Your task to perform on an android device: Clear the shopping cart on newegg. Add razer blade to the cart on newegg, then select checkout. Image 0: 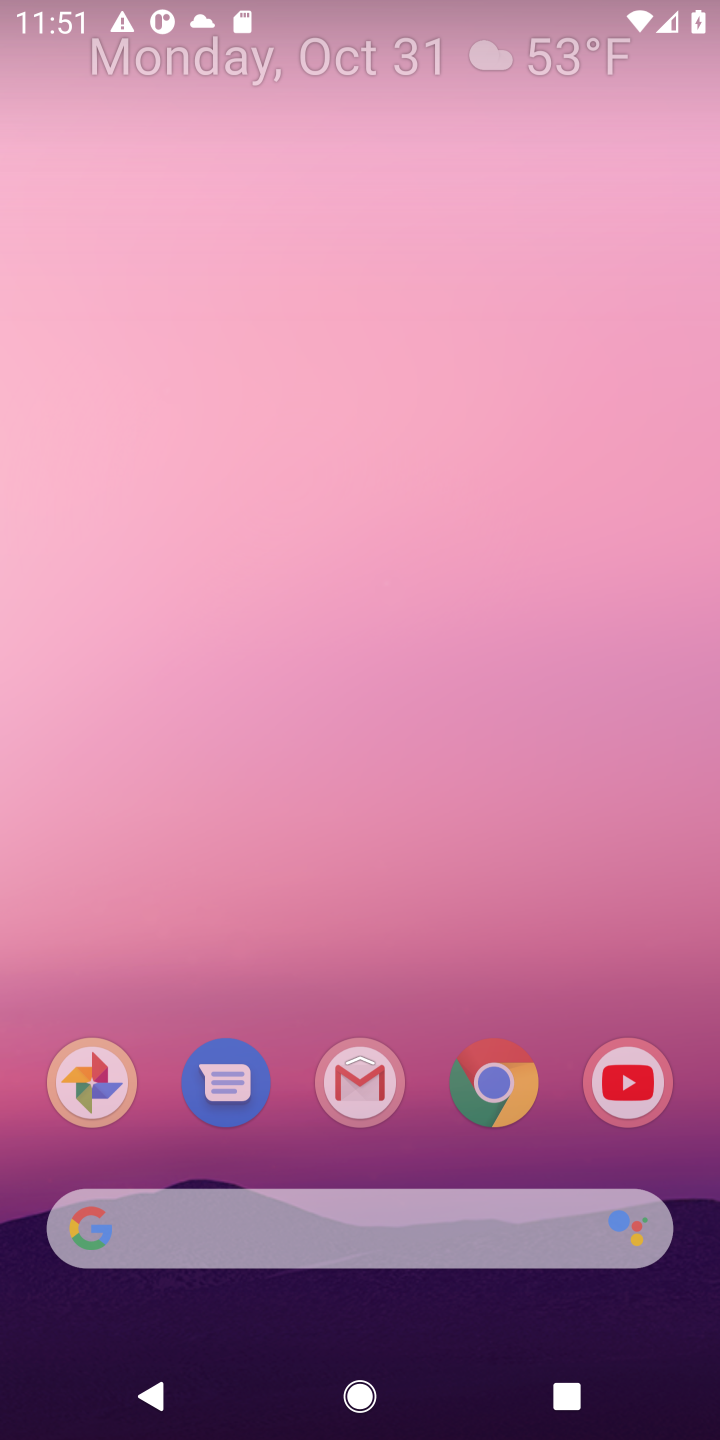
Step 0: press home button
Your task to perform on an android device: Clear the shopping cart on newegg. Add razer blade to the cart on newegg, then select checkout. Image 1: 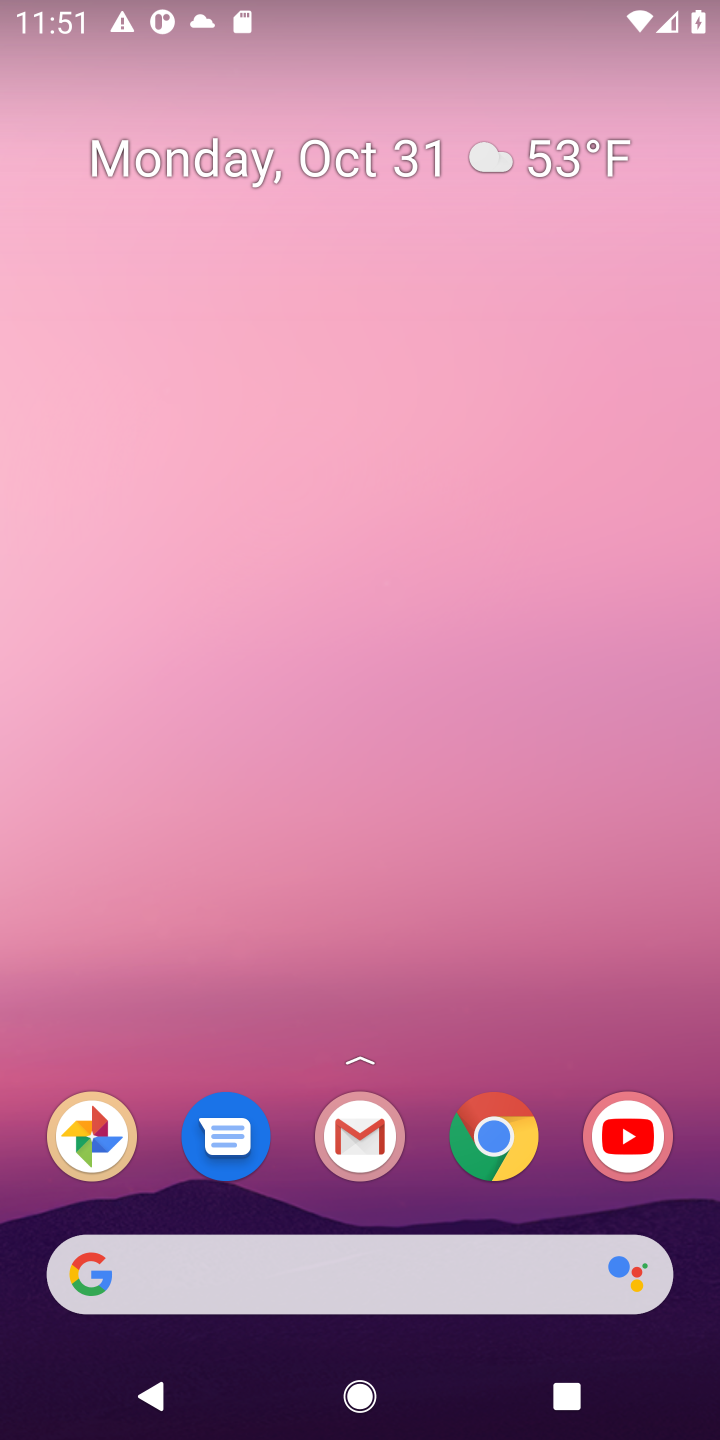
Step 1: click (131, 1260)
Your task to perform on an android device: Clear the shopping cart on newegg. Add razer blade to the cart on newegg, then select checkout. Image 2: 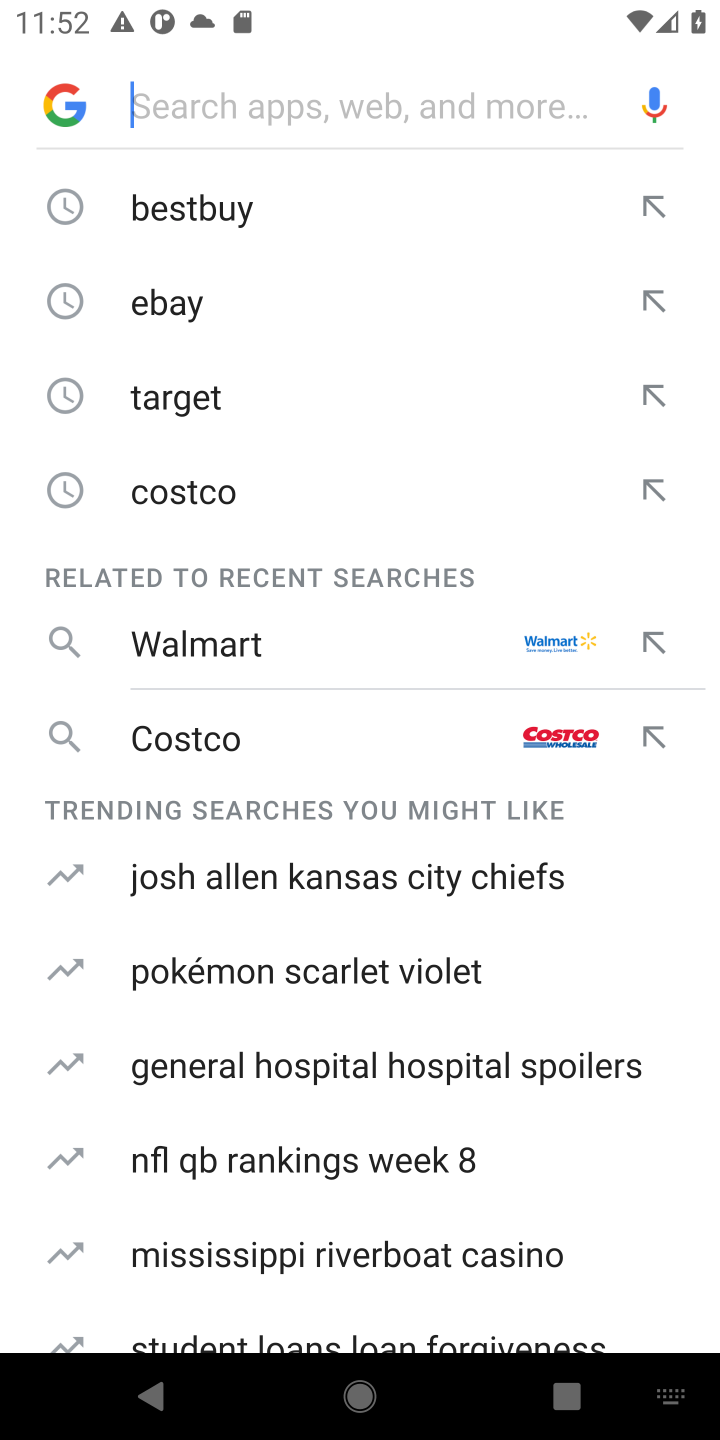
Step 2: press enter
Your task to perform on an android device: Clear the shopping cart on newegg. Add razer blade to the cart on newegg, then select checkout. Image 3: 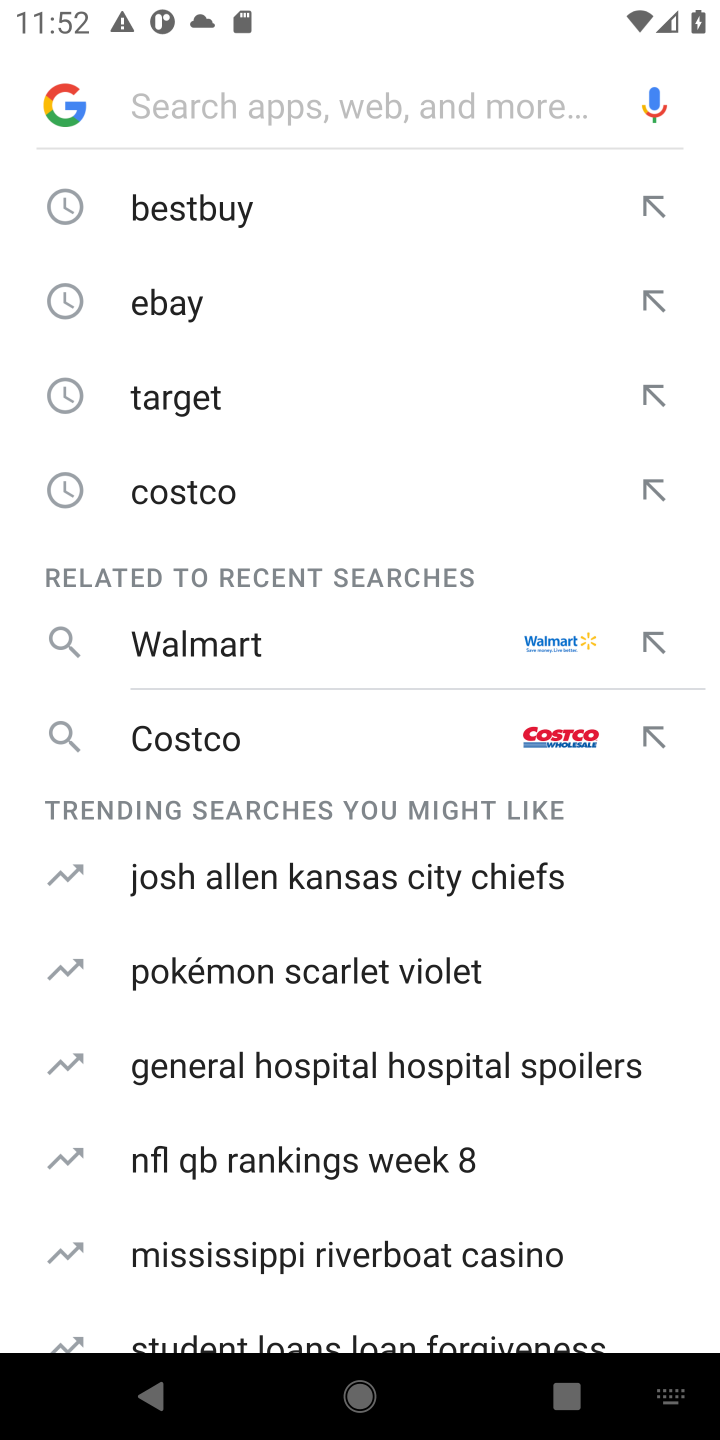
Step 3: type "newegg"
Your task to perform on an android device: Clear the shopping cart on newegg. Add razer blade to the cart on newegg, then select checkout. Image 4: 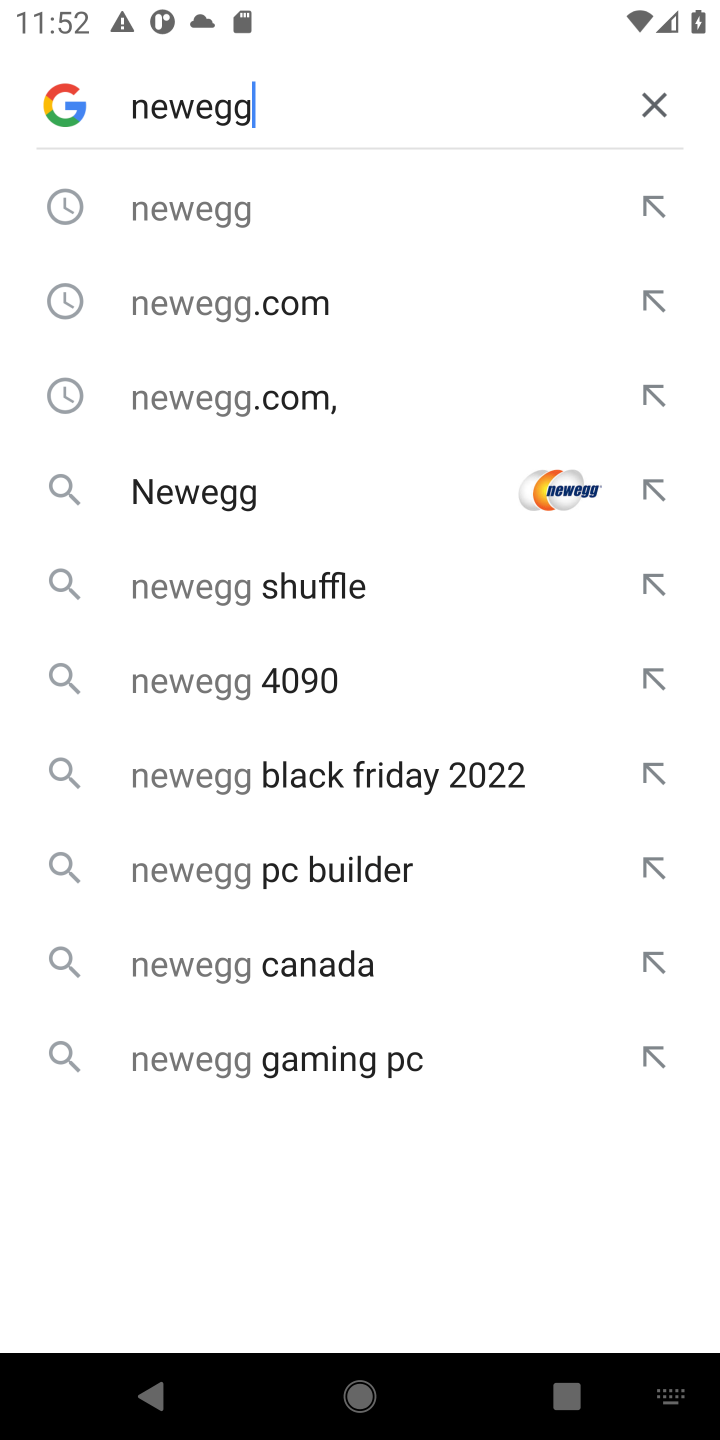
Step 4: press enter
Your task to perform on an android device: Clear the shopping cart on newegg. Add razer blade to the cart on newegg, then select checkout. Image 5: 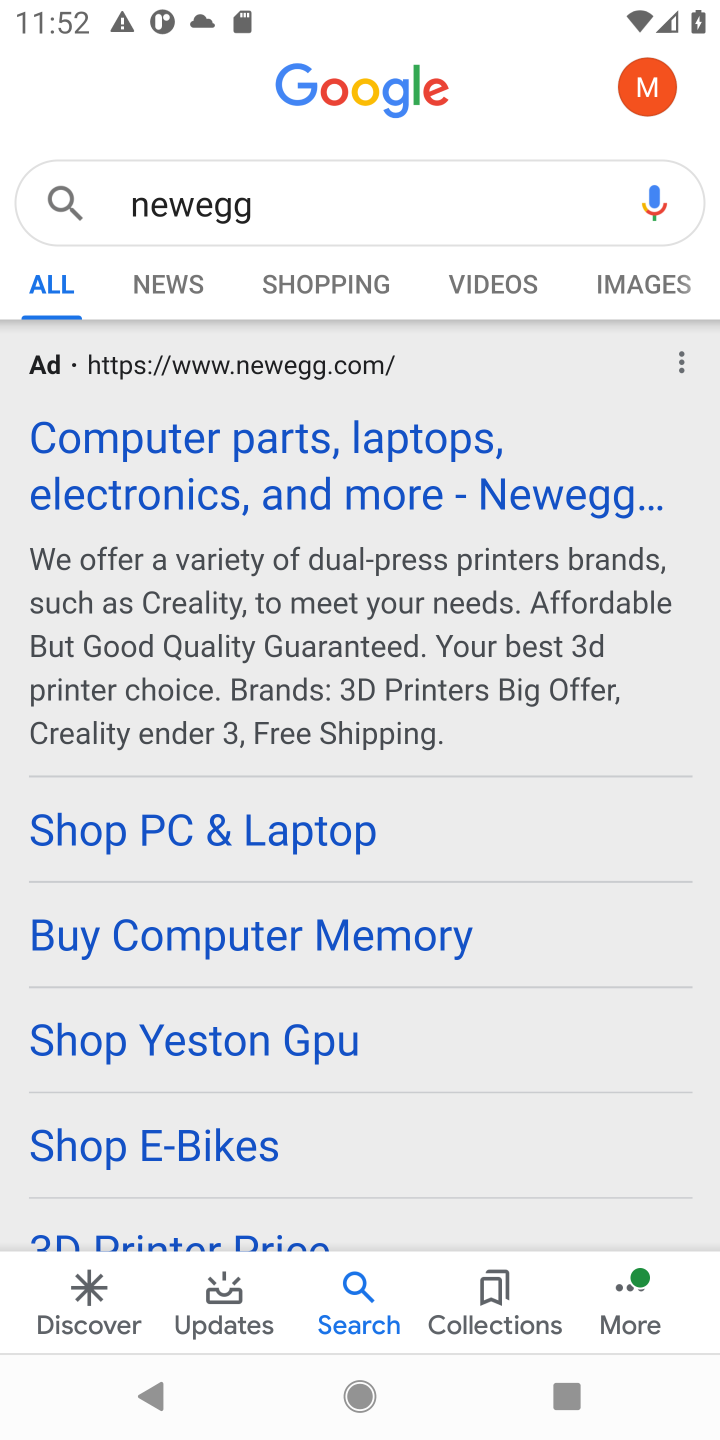
Step 5: drag from (572, 1032) to (552, 444)
Your task to perform on an android device: Clear the shopping cart on newegg. Add razer blade to the cart on newegg, then select checkout. Image 6: 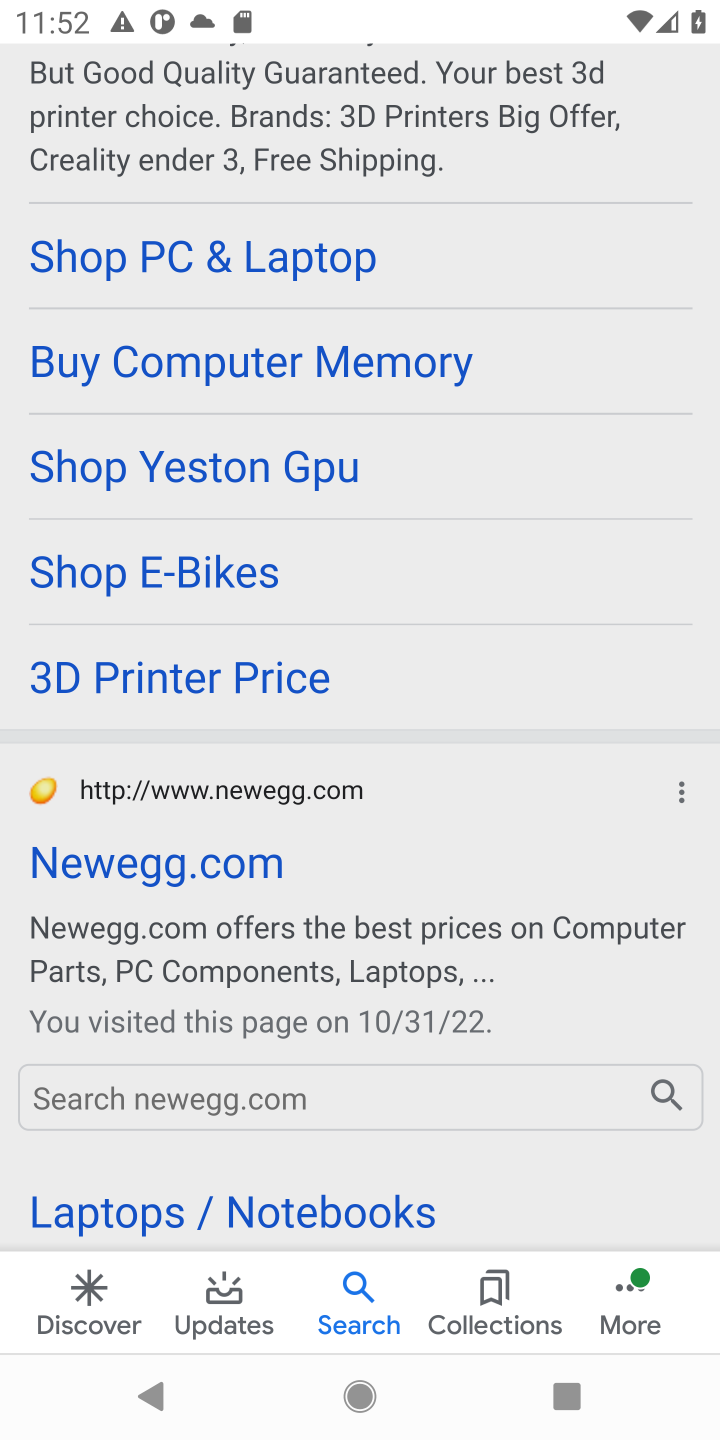
Step 6: click (142, 866)
Your task to perform on an android device: Clear the shopping cart on newegg. Add razer blade to the cart on newegg, then select checkout. Image 7: 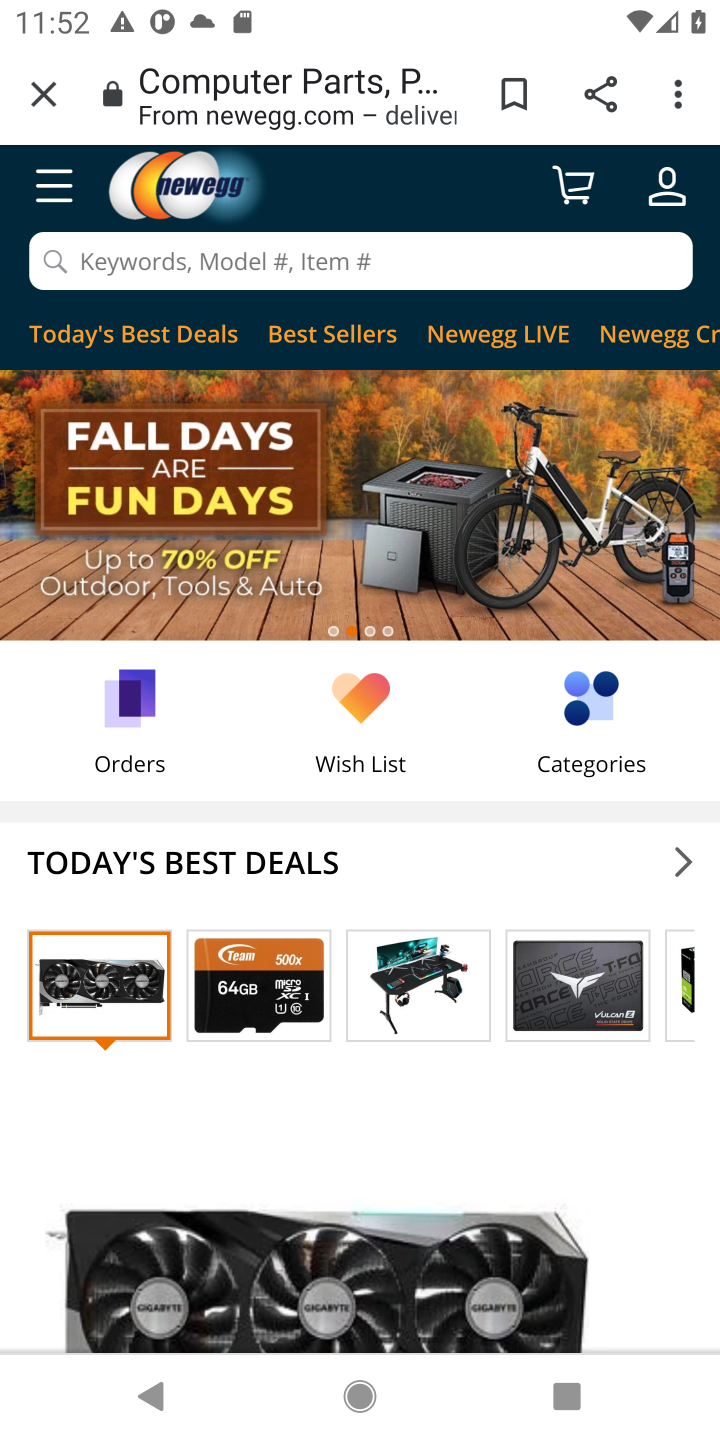
Step 7: click (92, 253)
Your task to perform on an android device: Clear the shopping cart on newegg. Add razer blade to the cart on newegg, then select checkout. Image 8: 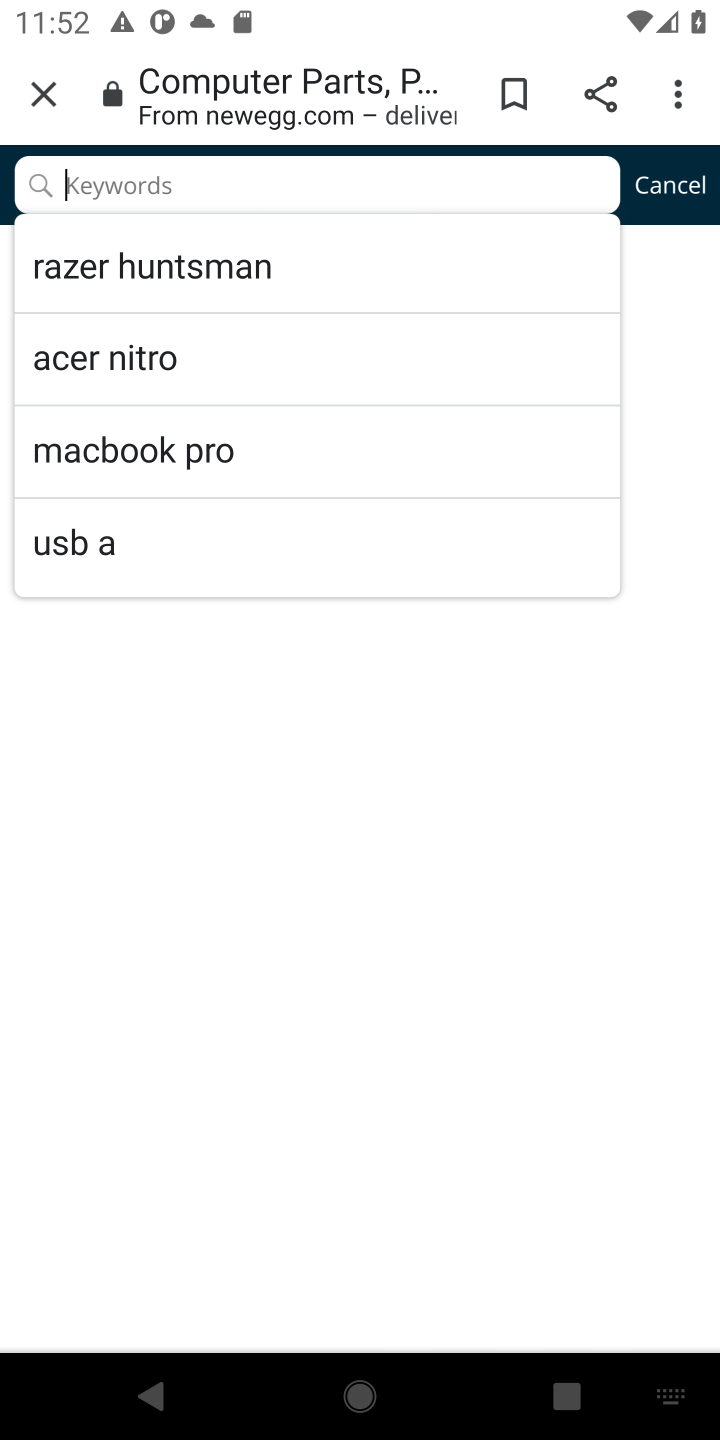
Step 8: press enter
Your task to perform on an android device: Clear the shopping cart on newegg. Add razer blade to the cart on newegg, then select checkout. Image 9: 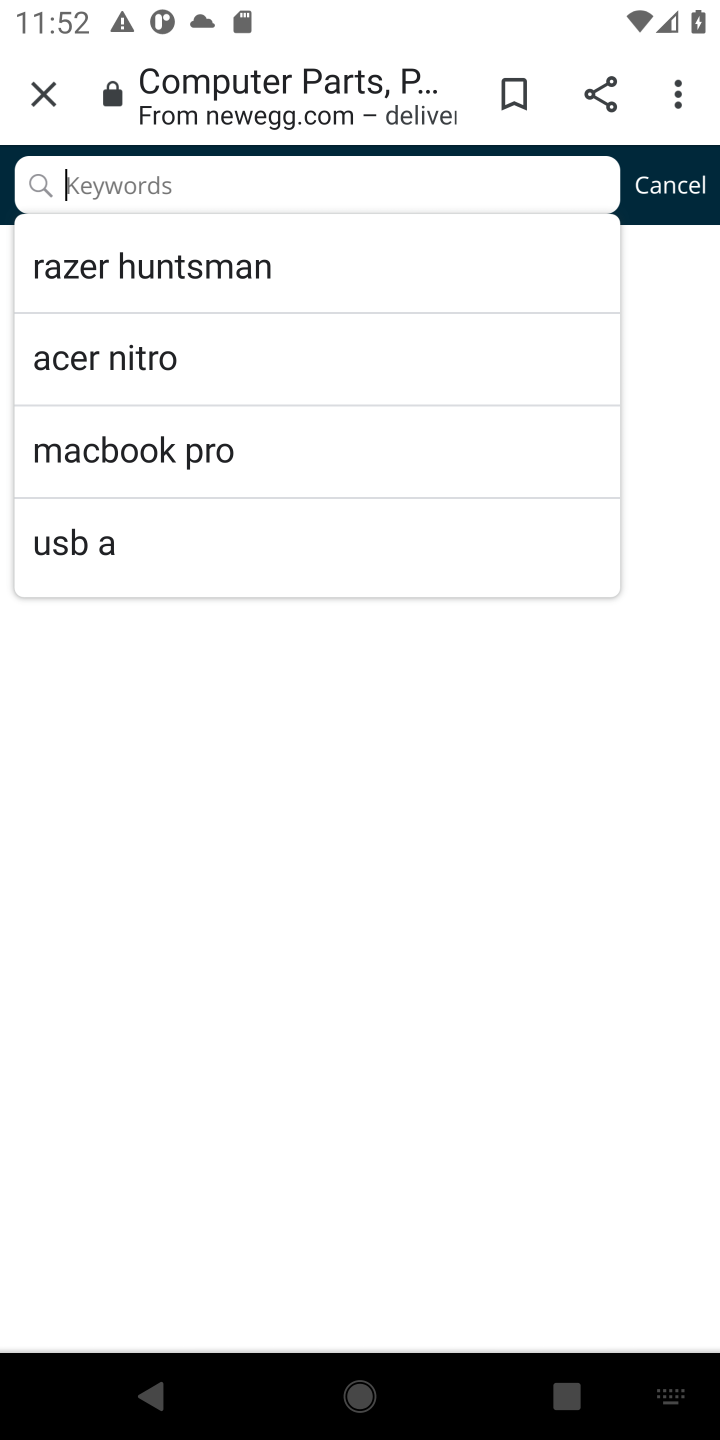
Step 9: type " razer blade"
Your task to perform on an android device: Clear the shopping cart on newegg. Add razer blade to the cart on newegg, then select checkout. Image 10: 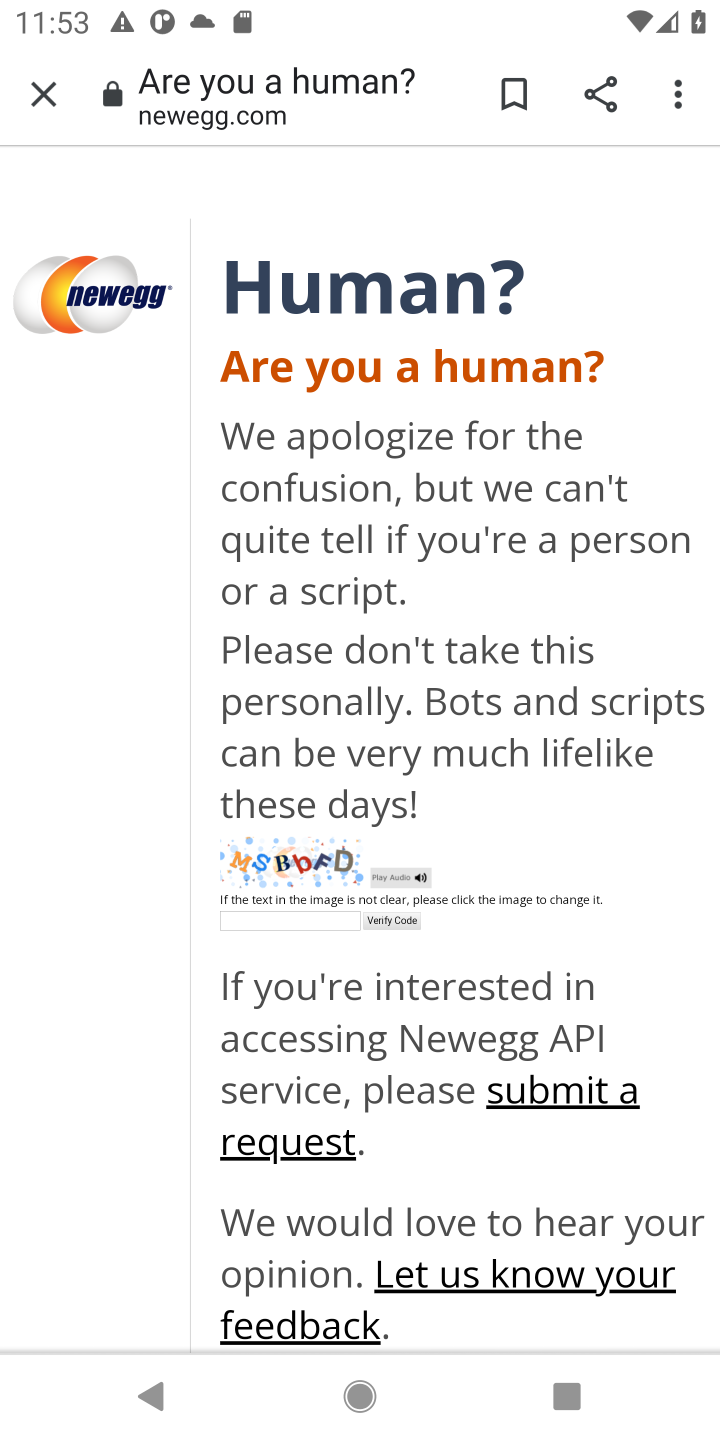
Step 10: task complete